Your task to perform on an android device: open app "ZOOM Cloud Meetings" (install if not already installed), go to login, and select forgot password Image 0: 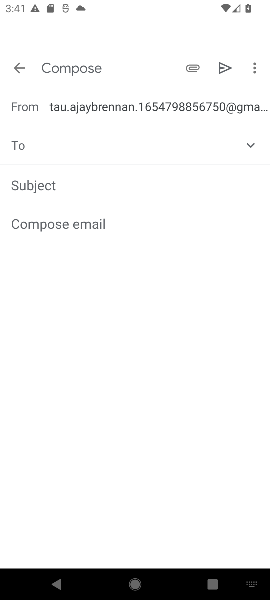
Step 0: press home button
Your task to perform on an android device: open app "ZOOM Cloud Meetings" (install if not already installed), go to login, and select forgot password Image 1: 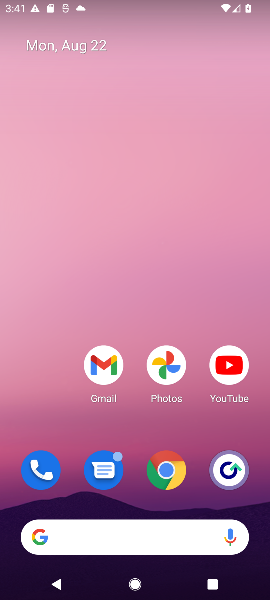
Step 1: drag from (140, 524) to (160, 92)
Your task to perform on an android device: open app "ZOOM Cloud Meetings" (install if not already installed), go to login, and select forgot password Image 2: 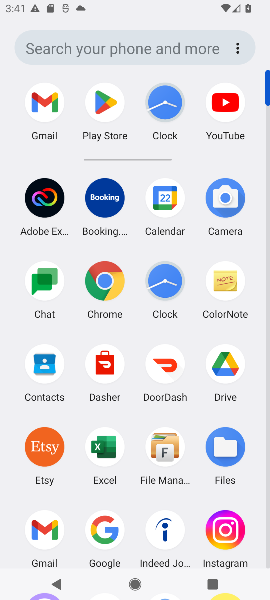
Step 2: click (107, 98)
Your task to perform on an android device: open app "ZOOM Cloud Meetings" (install if not already installed), go to login, and select forgot password Image 3: 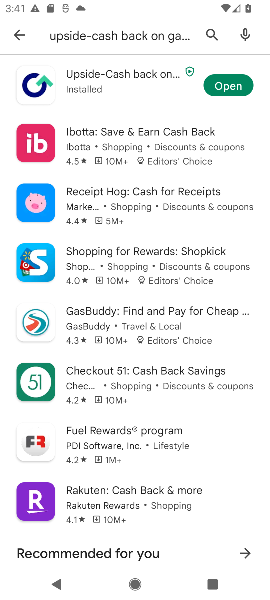
Step 3: click (6, 36)
Your task to perform on an android device: open app "ZOOM Cloud Meetings" (install if not already installed), go to login, and select forgot password Image 4: 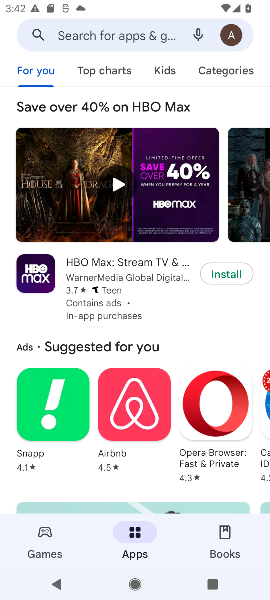
Step 4: click (113, 30)
Your task to perform on an android device: open app "ZOOM Cloud Meetings" (install if not already installed), go to login, and select forgot password Image 5: 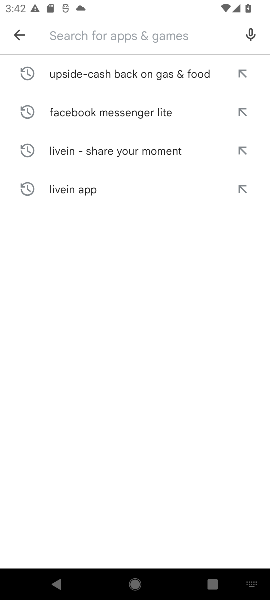
Step 5: type "ZOOM Cloud Meetings "
Your task to perform on an android device: open app "ZOOM Cloud Meetings" (install if not already installed), go to login, and select forgot password Image 6: 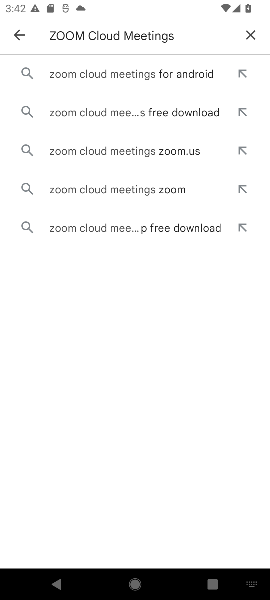
Step 6: click (85, 77)
Your task to perform on an android device: open app "ZOOM Cloud Meetings" (install if not already installed), go to login, and select forgot password Image 7: 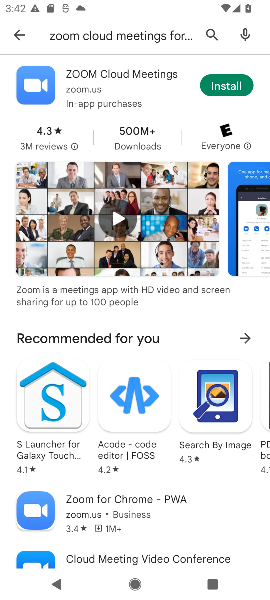
Step 7: click (231, 86)
Your task to perform on an android device: open app "ZOOM Cloud Meetings" (install if not already installed), go to login, and select forgot password Image 8: 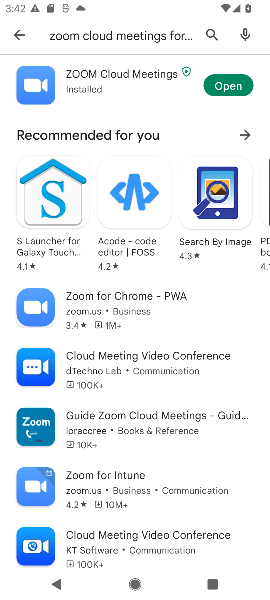
Step 8: click (231, 86)
Your task to perform on an android device: open app "ZOOM Cloud Meetings" (install if not already installed), go to login, and select forgot password Image 9: 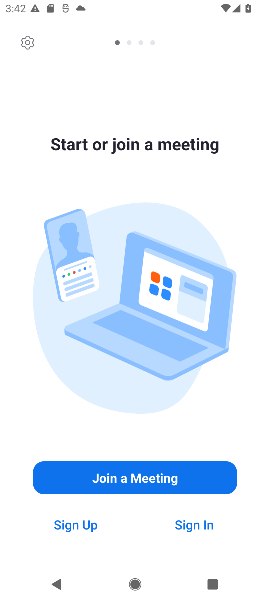
Step 9: task complete